Your task to perform on an android device: turn on the 24-hour format for clock Image 0: 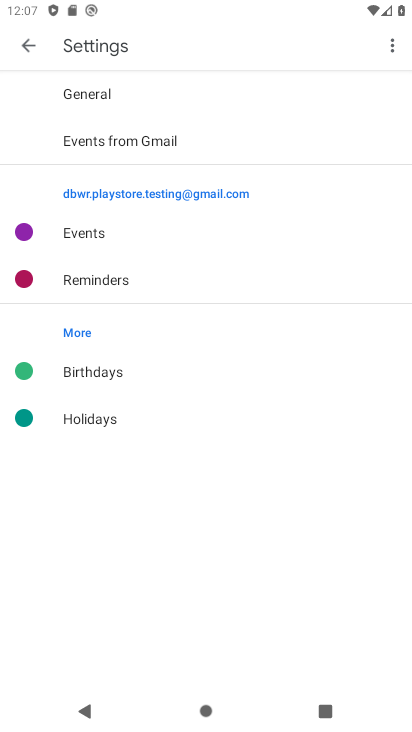
Step 0: press home button
Your task to perform on an android device: turn on the 24-hour format for clock Image 1: 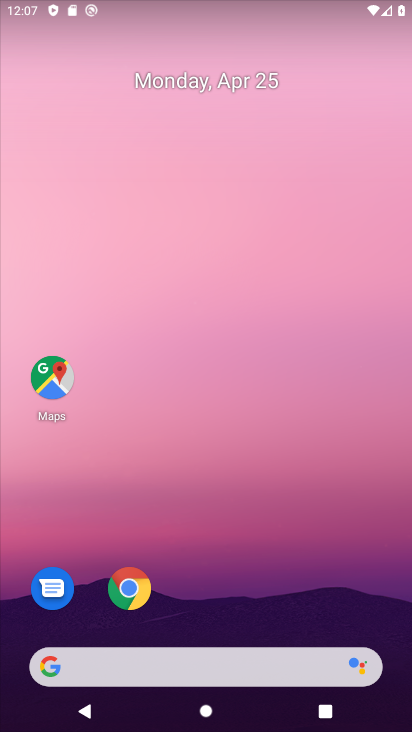
Step 1: drag from (253, 627) to (227, 117)
Your task to perform on an android device: turn on the 24-hour format for clock Image 2: 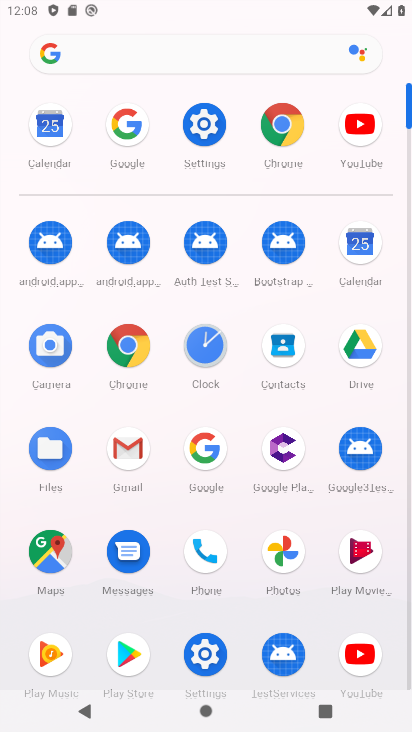
Step 2: click (203, 341)
Your task to perform on an android device: turn on the 24-hour format for clock Image 3: 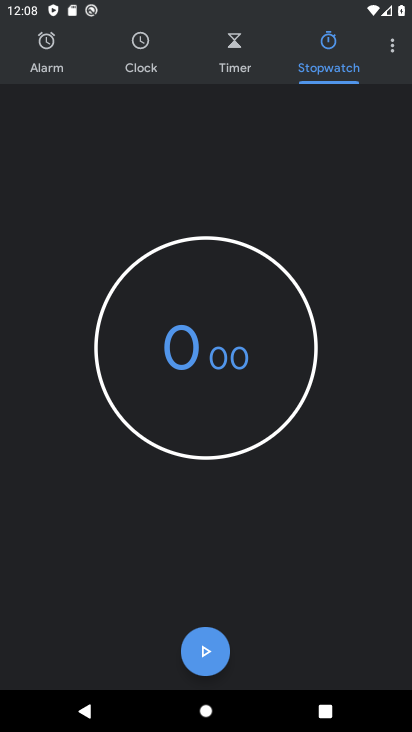
Step 3: click (391, 47)
Your task to perform on an android device: turn on the 24-hour format for clock Image 4: 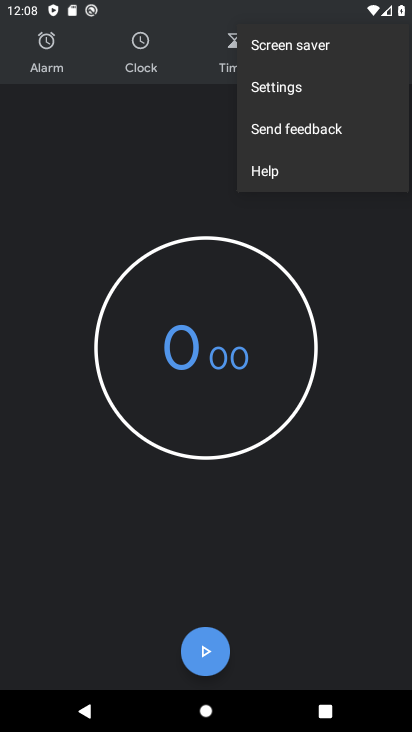
Step 4: click (296, 90)
Your task to perform on an android device: turn on the 24-hour format for clock Image 5: 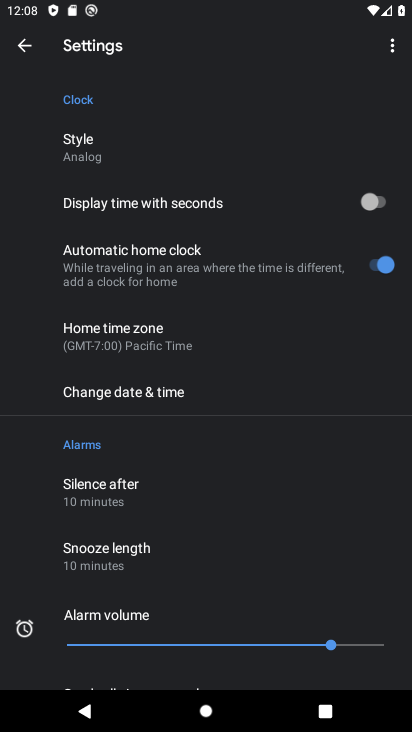
Step 5: click (191, 384)
Your task to perform on an android device: turn on the 24-hour format for clock Image 6: 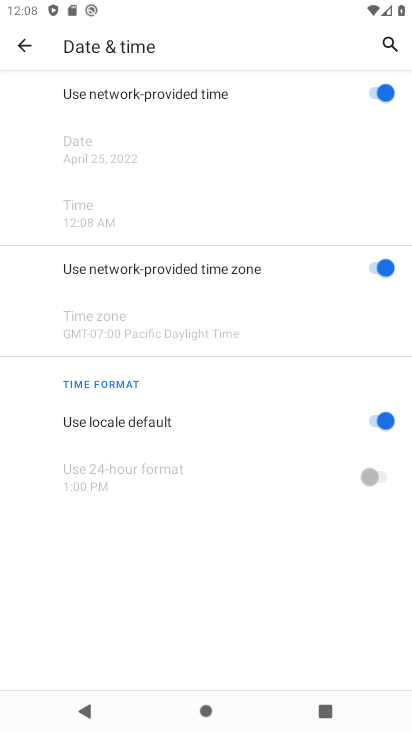
Step 6: click (369, 417)
Your task to perform on an android device: turn on the 24-hour format for clock Image 7: 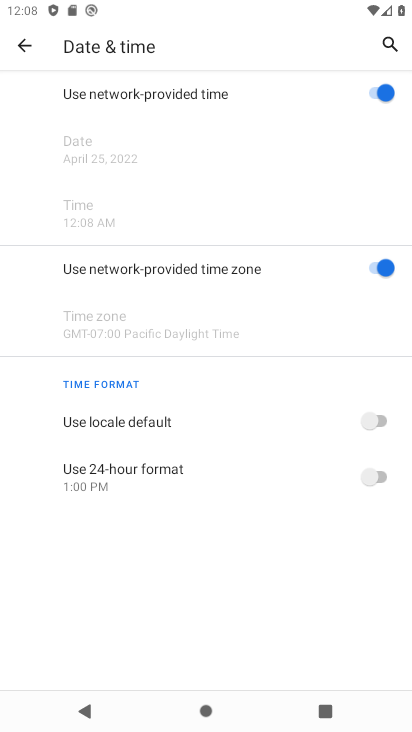
Step 7: click (385, 476)
Your task to perform on an android device: turn on the 24-hour format for clock Image 8: 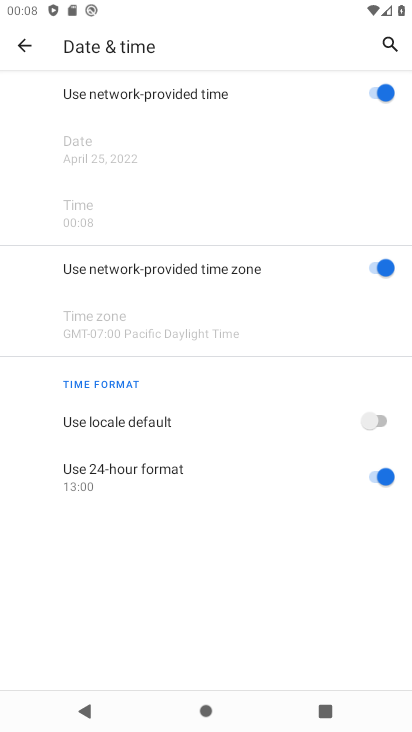
Step 8: task complete